Your task to perform on an android device: remove spam from my inbox in the gmail app Image 0: 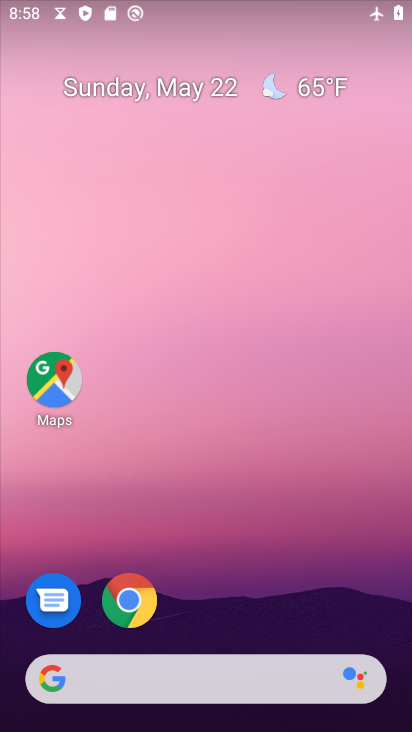
Step 0: drag from (229, 615) to (291, 8)
Your task to perform on an android device: remove spam from my inbox in the gmail app Image 1: 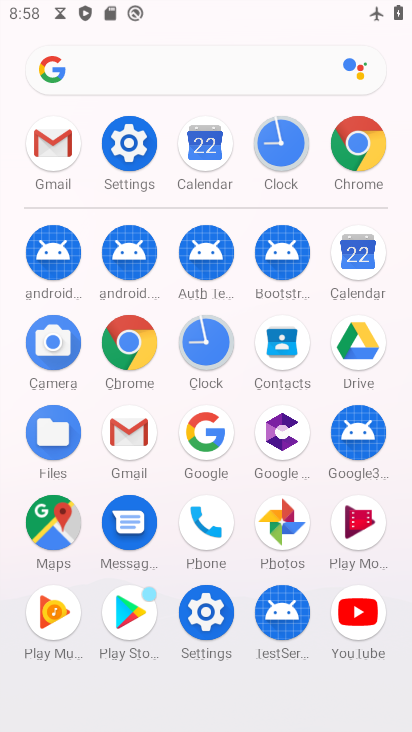
Step 1: click (53, 203)
Your task to perform on an android device: remove spam from my inbox in the gmail app Image 2: 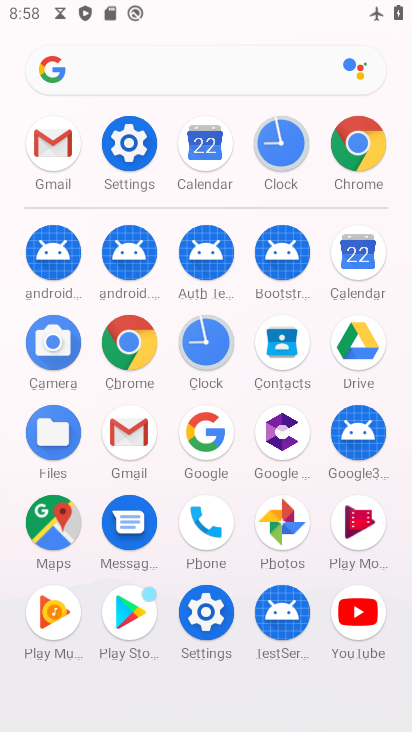
Step 2: click (55, 179)
Your task to perform on an android device: remove spam from my inbox in the gmail app Image 3: 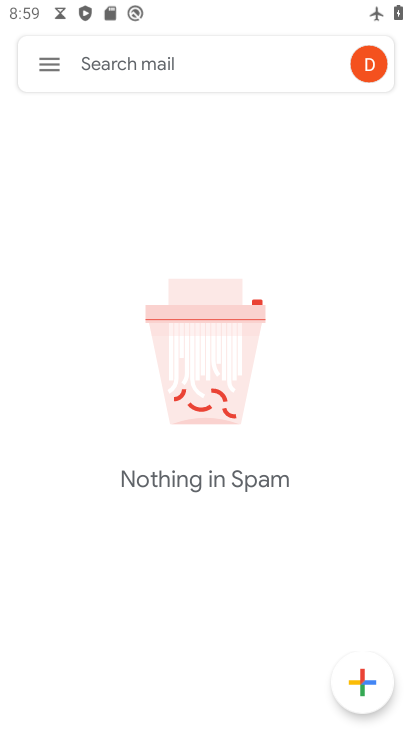
Step 3: click (40, 75)
Your task to perform on an android device: remove spam from my inbox in the gmail app Image 4: 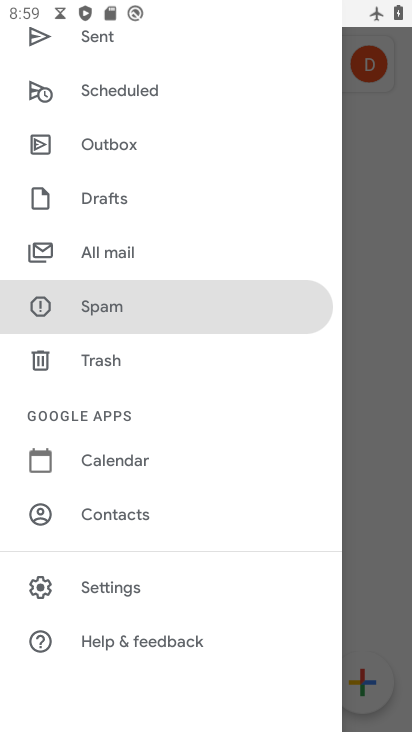
Step 4: click (106, 314)
Your task to perform on an android device: remove spam from my inbox in the gmail app Image 5: 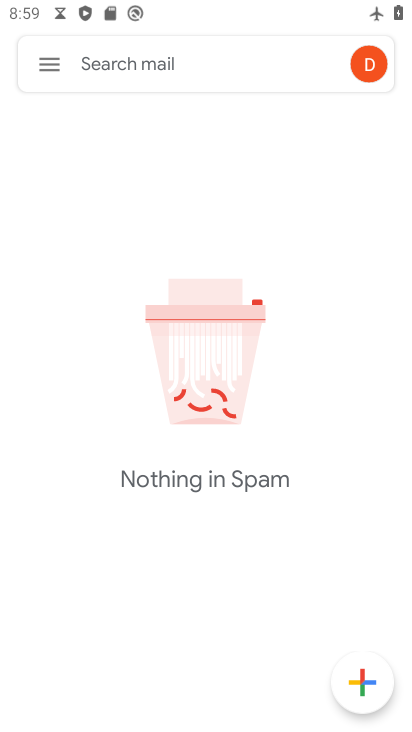
Step 5: task complete